Your task to perform on an android device: Open privacy settings Image 0: 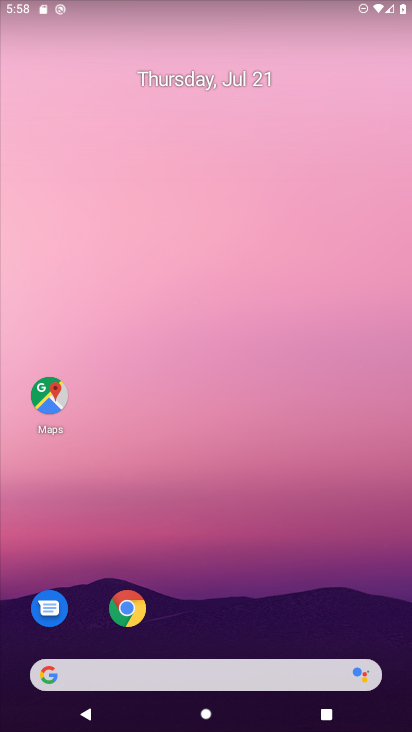
Step 0: drag from (219, 672) to (234, 249)
Your task to perform on an android device: Open privacy settings Image 1: 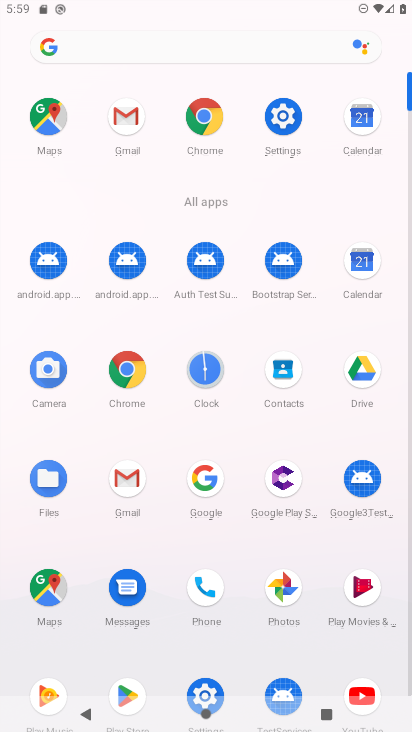
Step 1: click (283, 114)
Your task to perform on an android device: Open privacy settings Image 2: 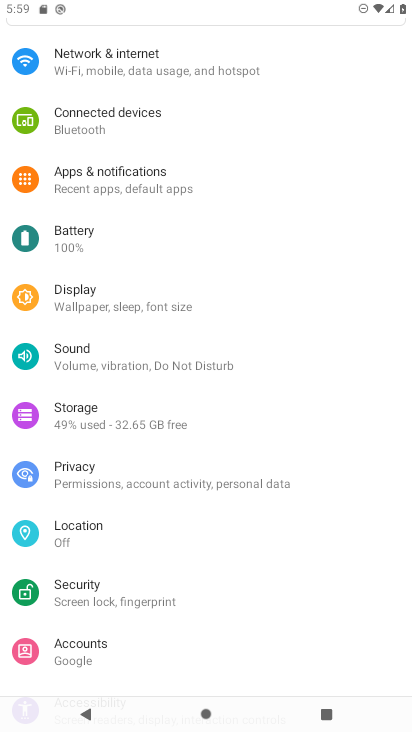
Step 2: click (83, 464)
Your task to perform on an android device: Open privacy settings Image 3: 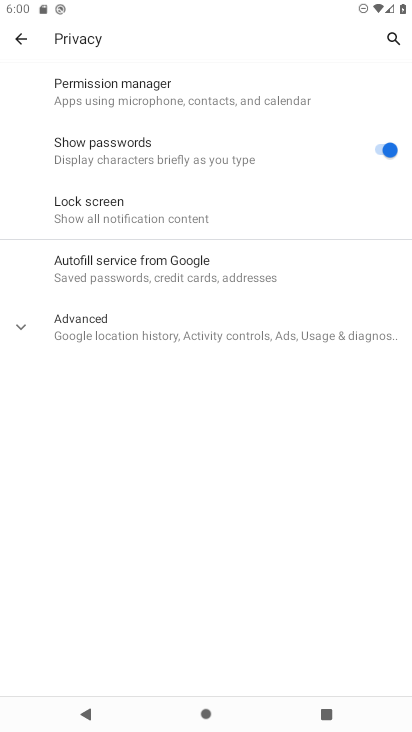
Step 3: task complete